Your task to perform on an android device: What's the weather today? Image 0: 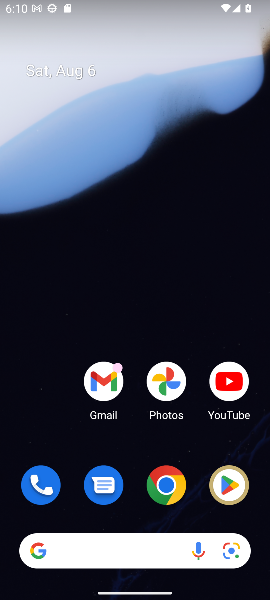
Step 0: press home button
Your task to perform on an android device: What's the weather today? Image 1: 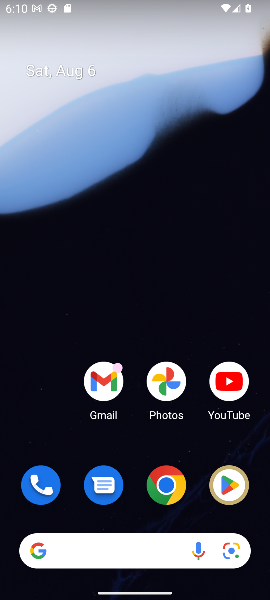
Step 1: click (164, 481)
Your task to perform on an android device: What's the weather today? Image 2: 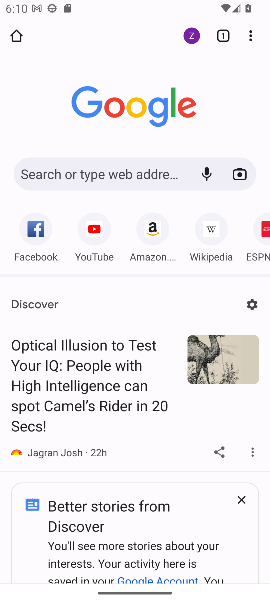
Step 2: click (115, 175)
Your task to perform on an android device: What's the weather today? Image 3: 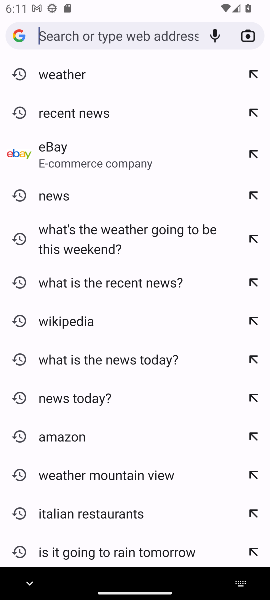
Step 3: click (72, 74)
Your task to perform on an android device: What's the weather today? Image 4: 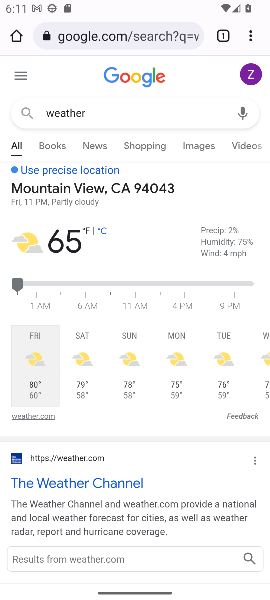
Step 4: task complete